Your task to perform on an android device: turn on javascript in the chrome app Image 0: 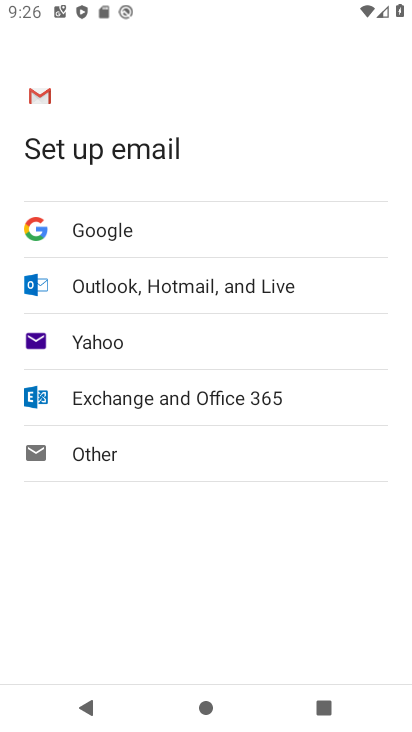
Step 0: press home button
Your task to perform on an android device: turn on javascript in the chrome app Image 1: 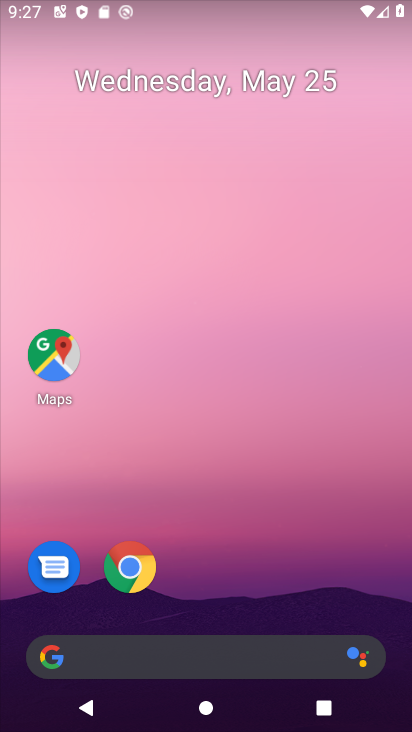
Step 1: click (106, 570)
Your task to perform on an android device: turn on javascript in the chrome app Image 2: 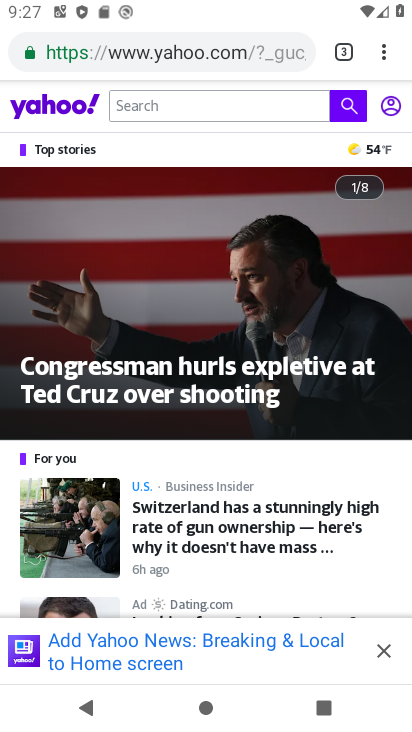
Step 2: click (378, 64)
Your task to perform on an android device: turn on javascript in the chrome app Image 3: 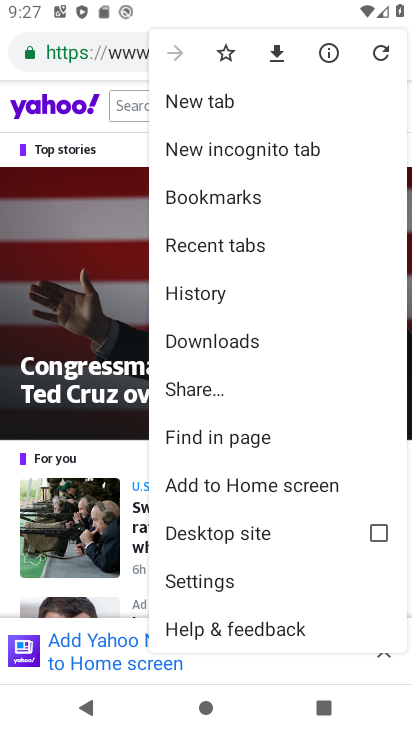
Step 3: click (230, 589)
Your task to perform on an android device: turn on javascript in the chrome app Image 4: 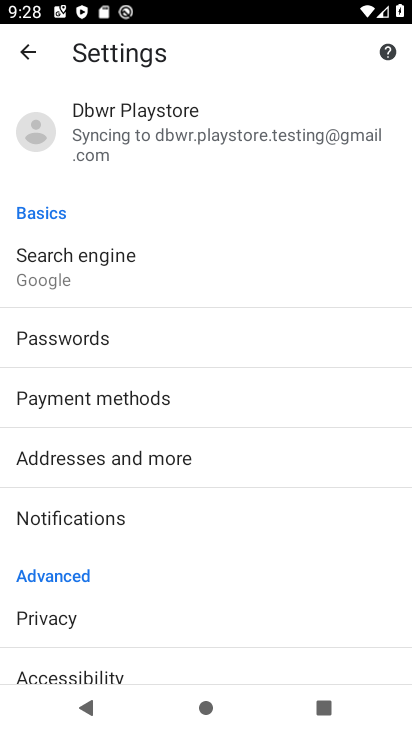
Step 4: drag from (207, 549) to (206, 260)
Your task to perform on an android device: turn on javascript in the chrome app Image 5: 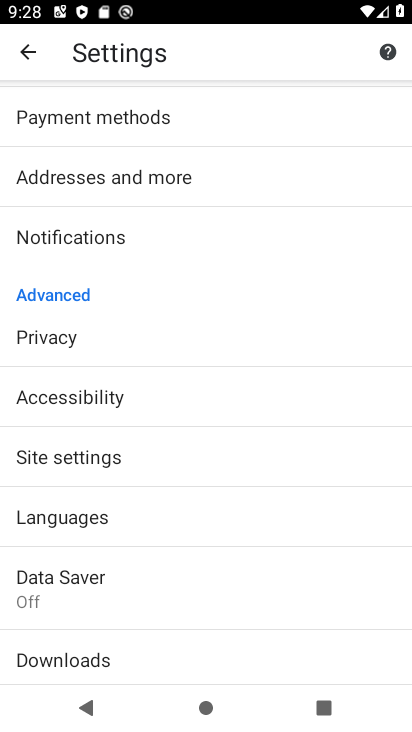
Step 5: click (189, 439)
Your task to perform on an android device: turn on javascript in the chrome app Image 6: 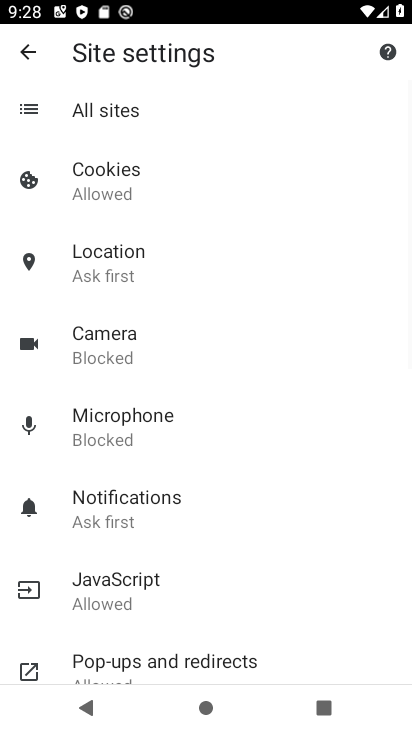
Step 6: click (227, 599)
Your task to perform on an android device: turn on javascript in the chrome app Image 7: 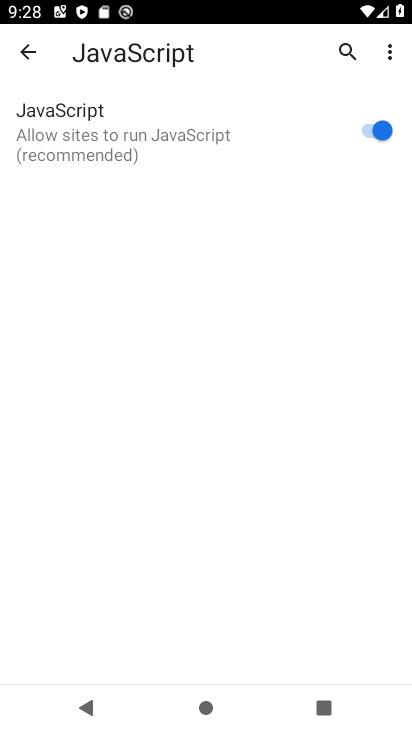
Step 7: click (365, 146)
Your task to perform on an android device: turn on javascript in the chrome app Image 8: 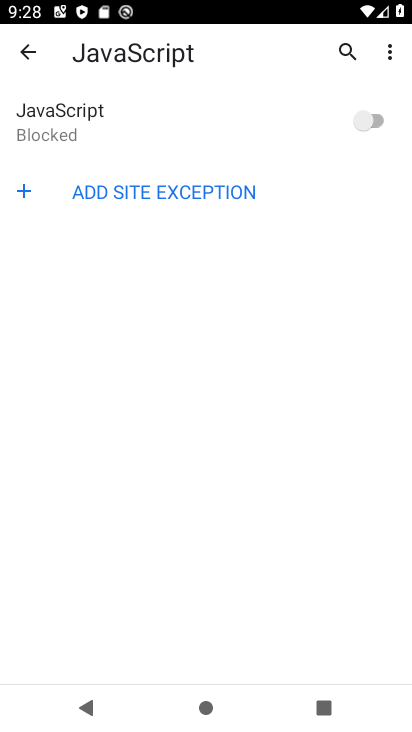
Step 8: task complete